Your task to perform on an android device: Open Google Chrome and open the bookmarks view Image 0: 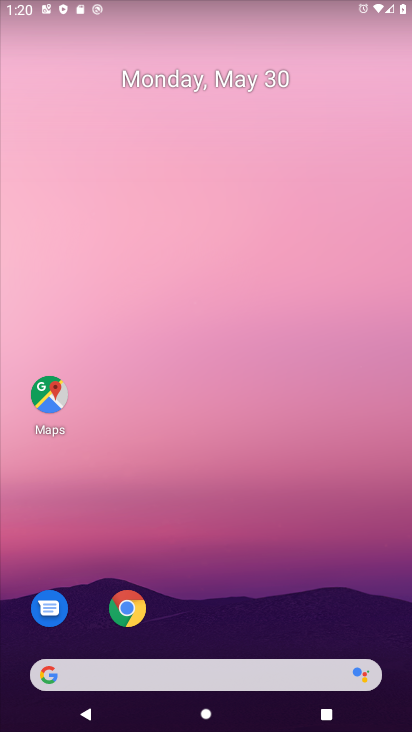
Step 0: click (138, 611)
Your task to perform on an android device: Open Google Chrome and open the bookmarks view Image 1: 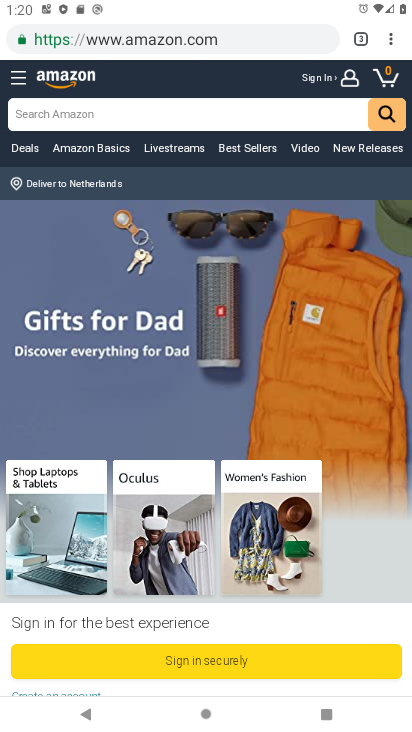
Step 1: click (391, 30)
Your task to perform on an android device: Open Google Chrome and open the bookmarks view Image 2: 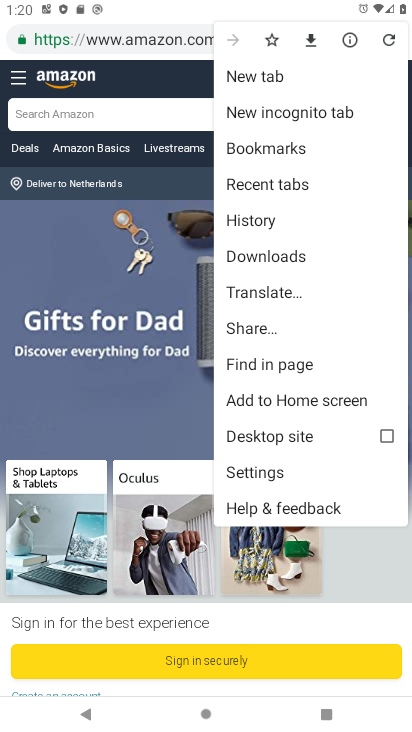
Step 2: click (276, 149)
Your task to perform on an android device: Open Google Chrome and open the bookmarks view Image 3: 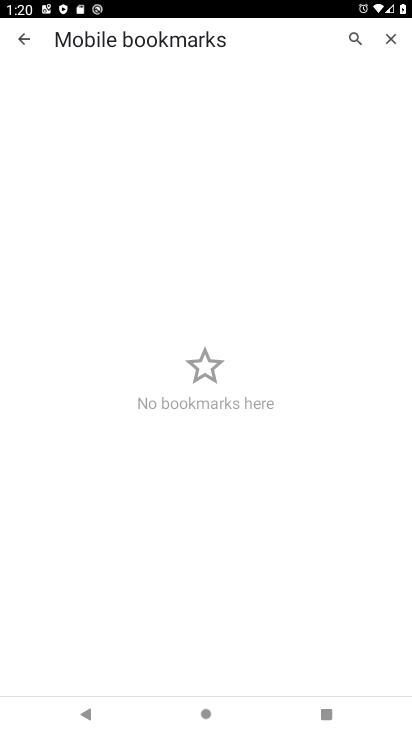
Step 3: task complete